Your task to perform on an android device: Is it going to rain this weekend? Image 0: 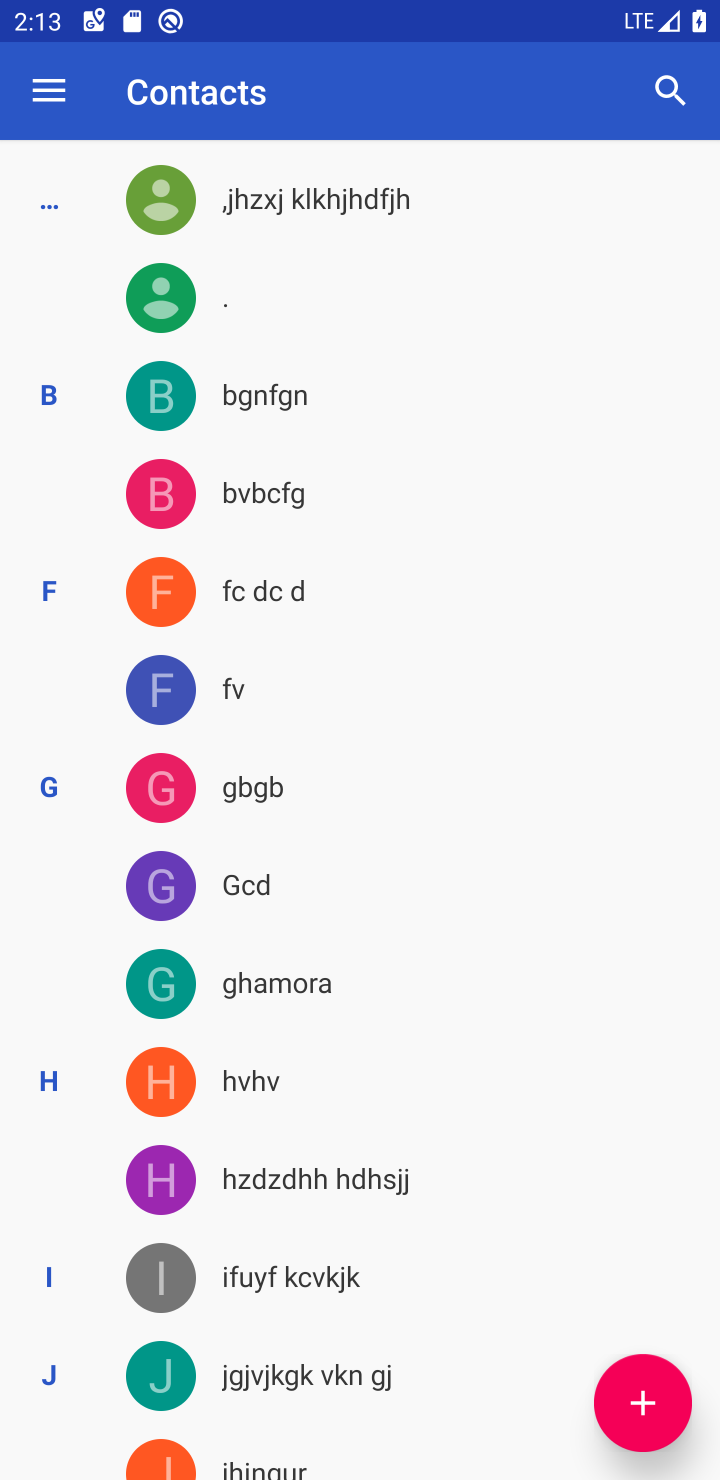
Step 0: press home button
Your task to perform on an android device: Is it going to rain this weekend? Image 1: 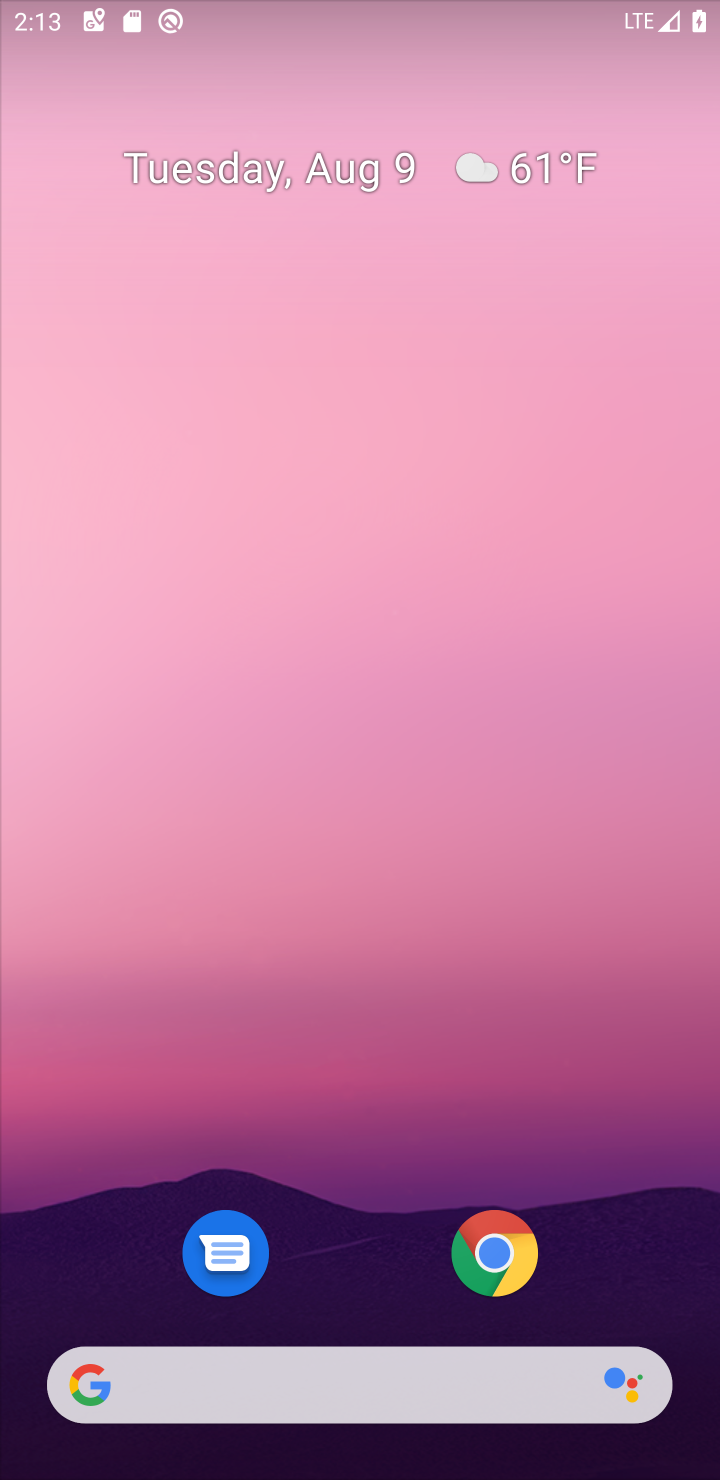
Step 1: drag from (649, 1117) to (340, 79)
Your task to perform on an android device: Is it going to rain this weekend? Image 2: 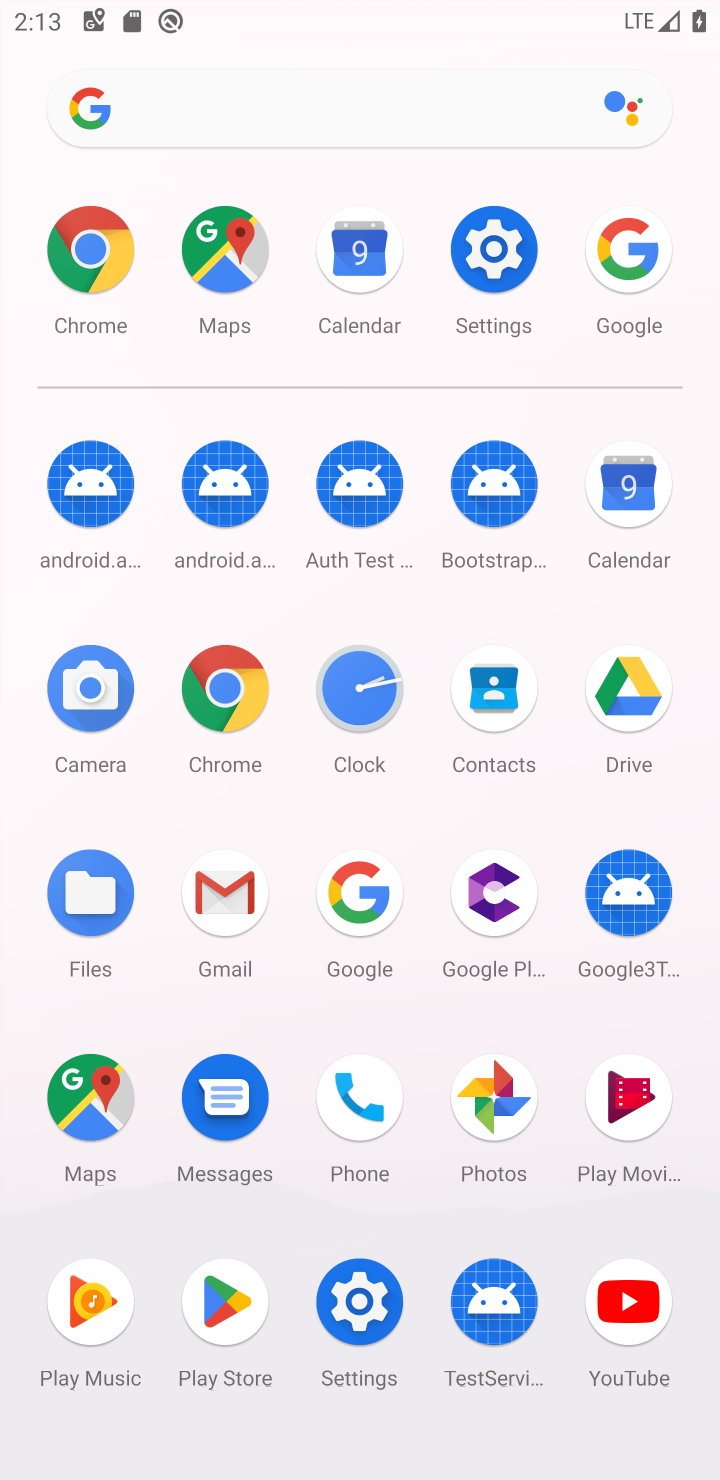
Step 2: click (373, 887)
Your task to perform on an android device: Is it going to rain this weekend? Image 3: 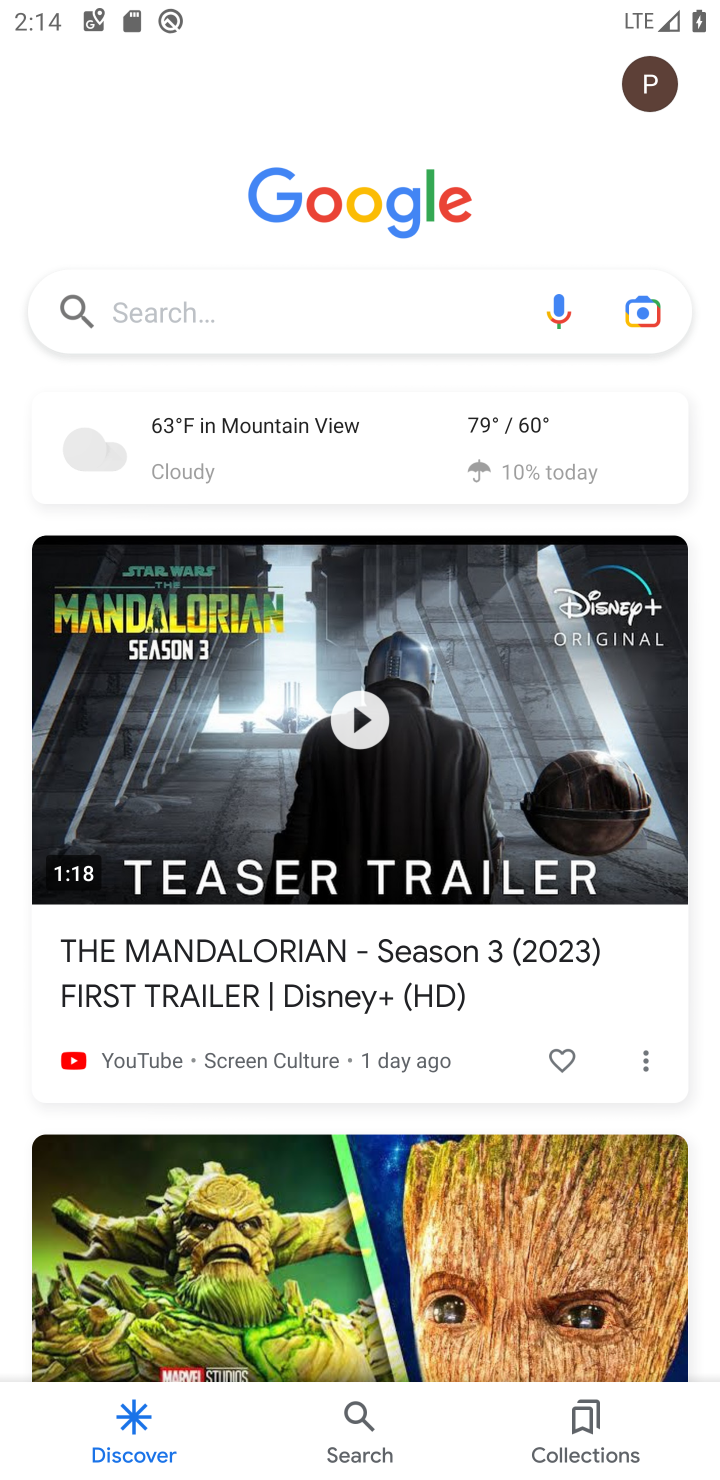
Step 3: click (274, 296)
Your task to perform on an android device: Is it going to rain this weekend? Image 4: 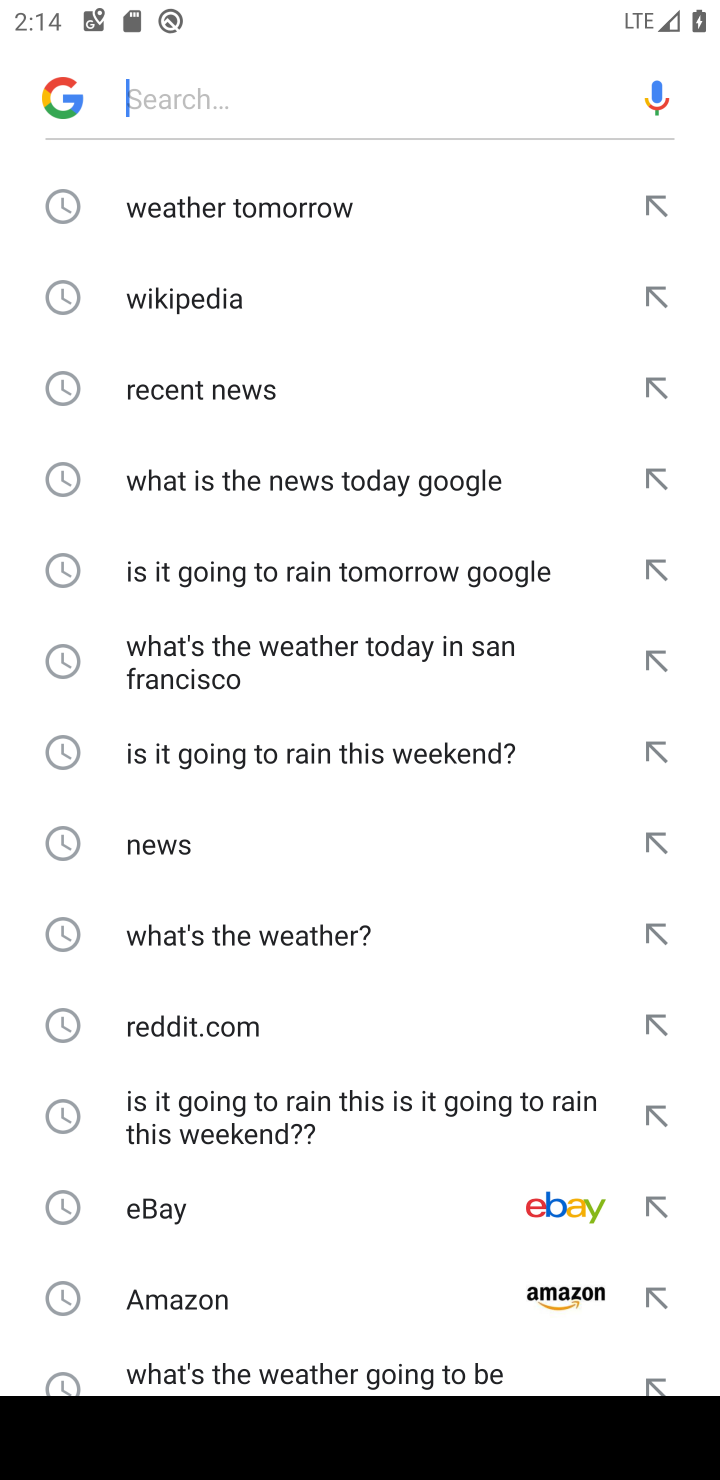
Step 4: click (287, 1142)
Your task to perform on an android device: Is it going to rain this weekend? Image 5: 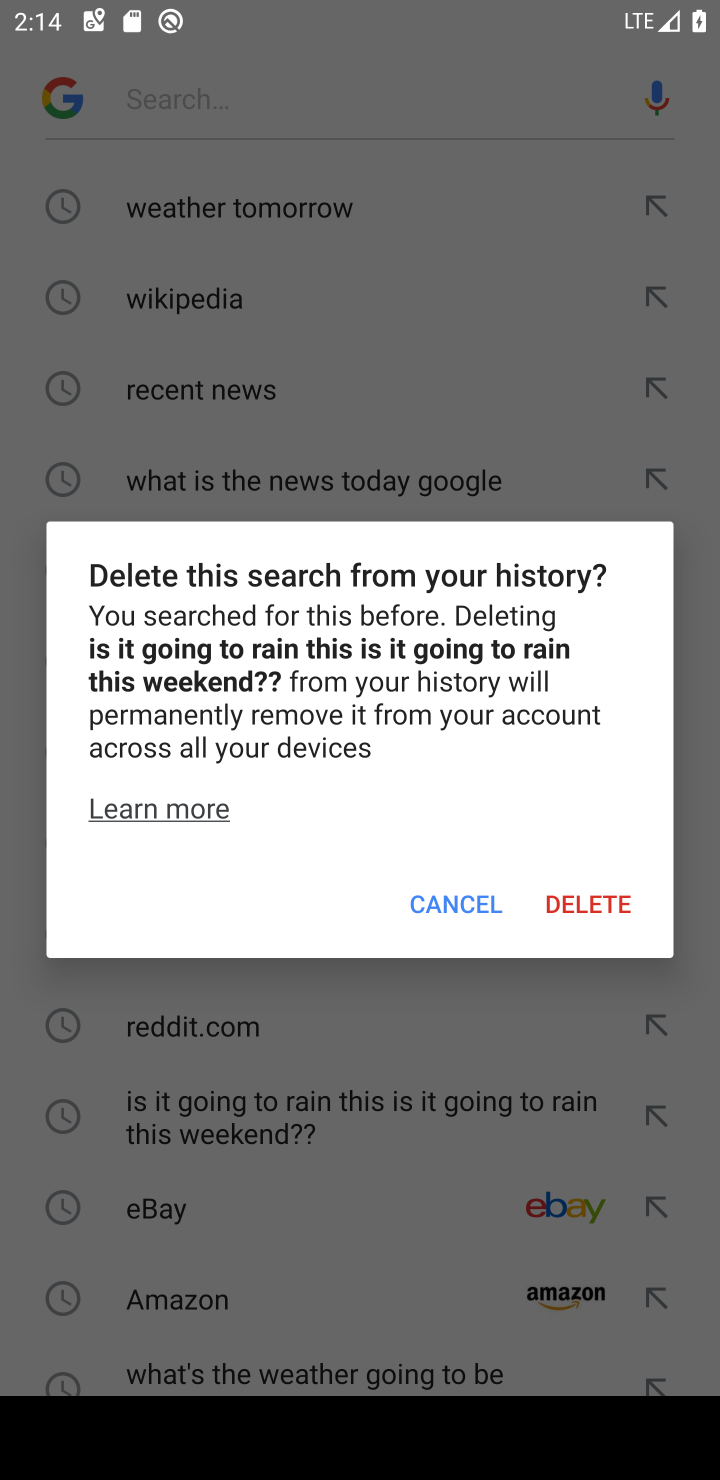
Step 5: click (471, 899)
Your task to perform on an android device: Is it going to rain this weekend? Image 6: 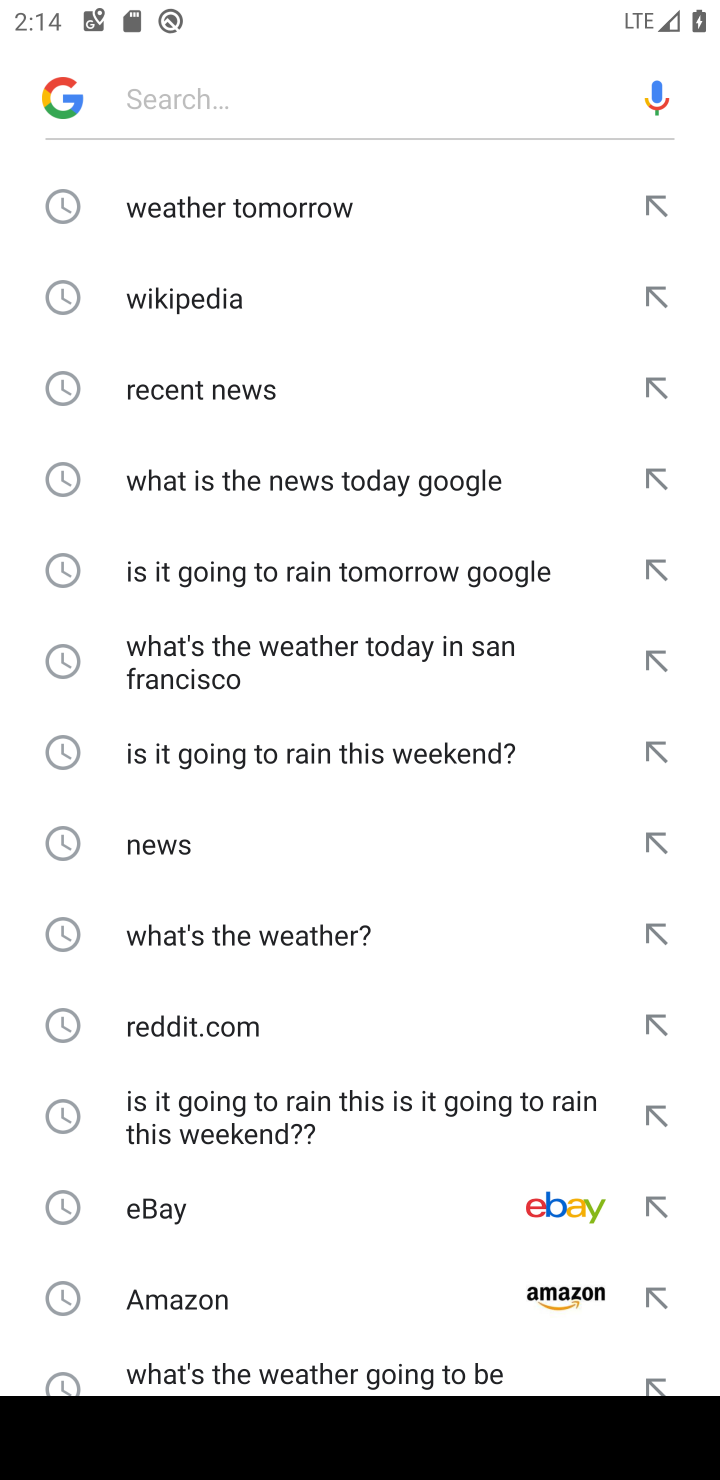
Step 6: click (178, 1118)
Your task to perform on an android device: Is it going to rain this weekend? Image 7: 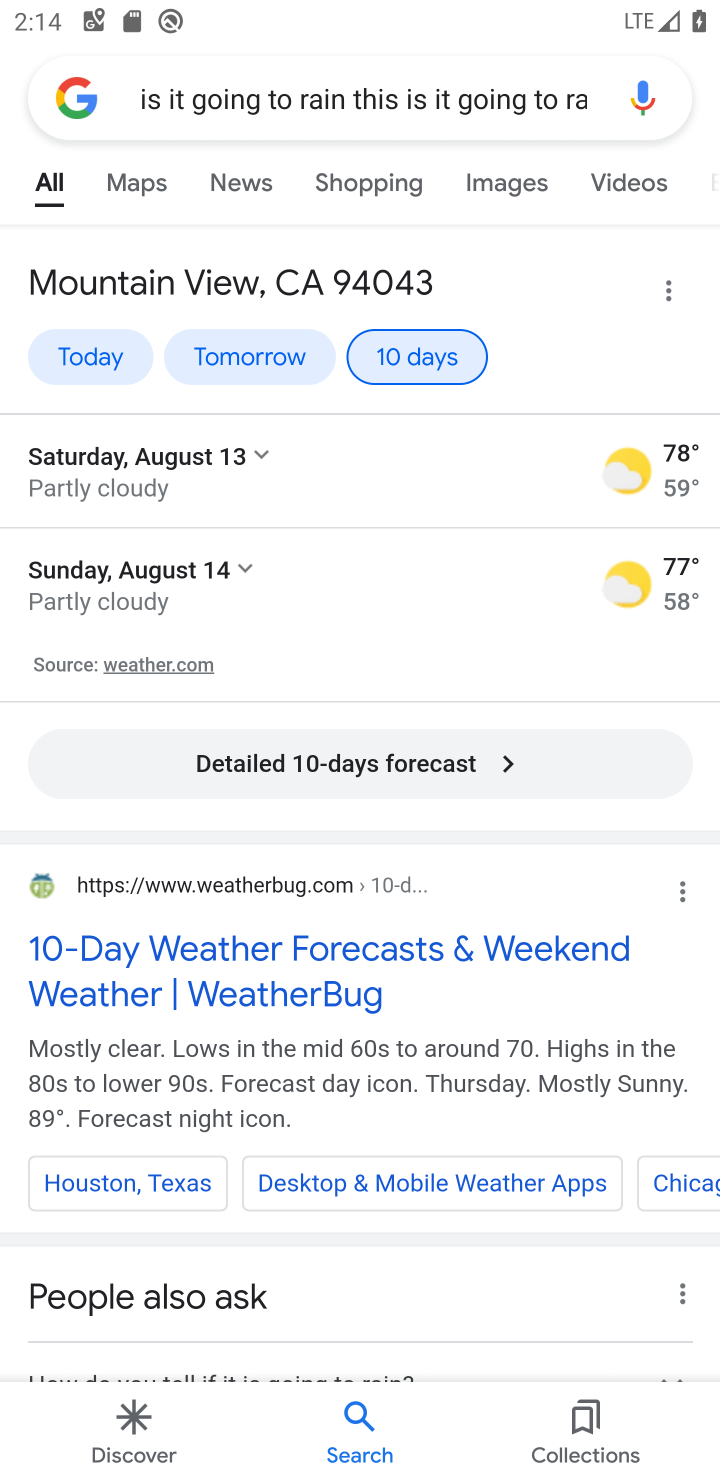
Step 7: task complete